Your task to perform on an android device: check google app version Image 0: 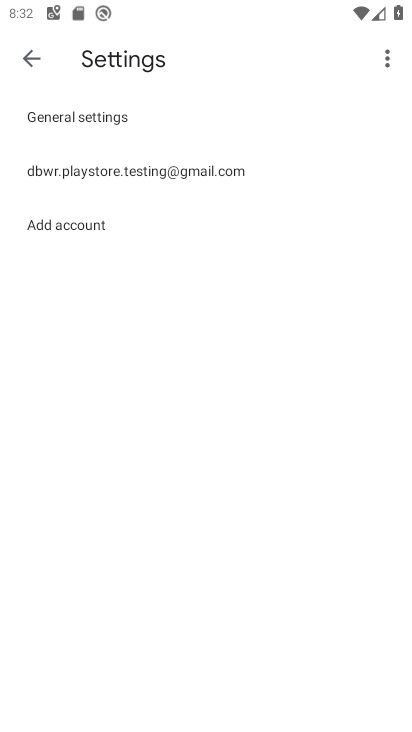
Step 0: click (26, 57)
Your task to perform on an android device: check google app version Image 1: 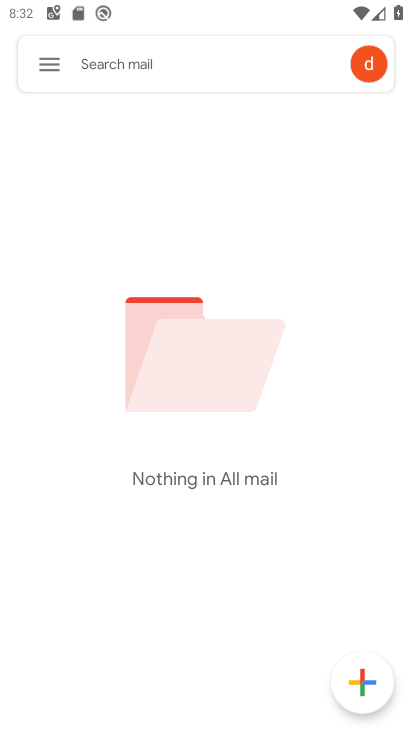
Step 1: press back button
Your task to perform on an android device: check google app version Image 2: 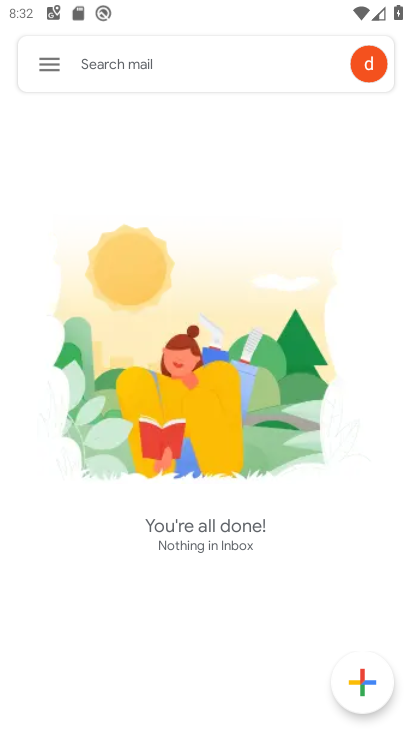
Step 2: press home button
Your task to perform on an android device: check google app version Image 3: 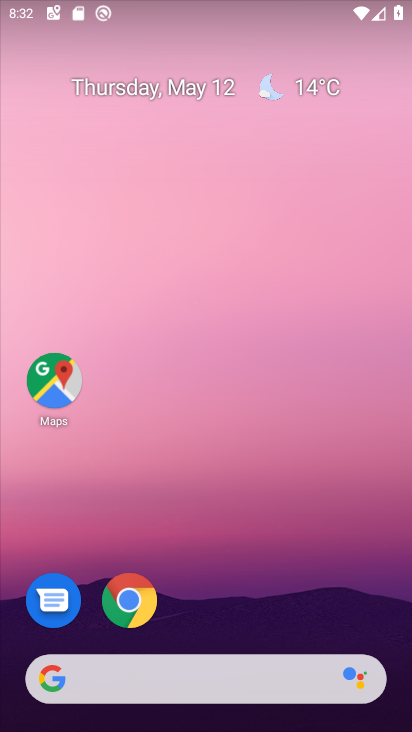
Step 3: drag from (293, 601) to (131, 106)
Your task to perform on an android device: check google app version Image 4: 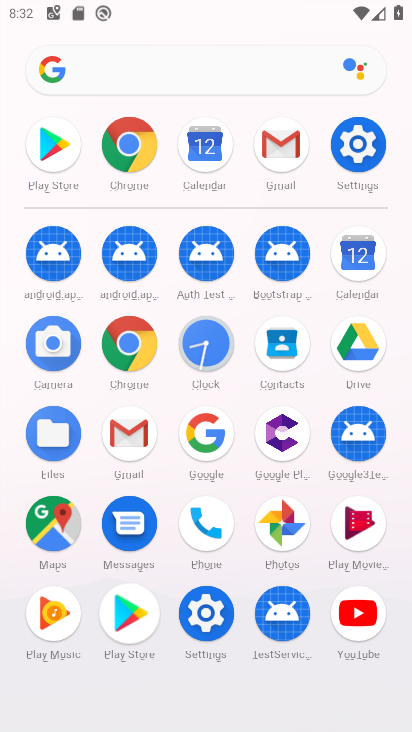
Step 4: click (213, 437)
Your task to perform on an android device: check google app version Image 5: 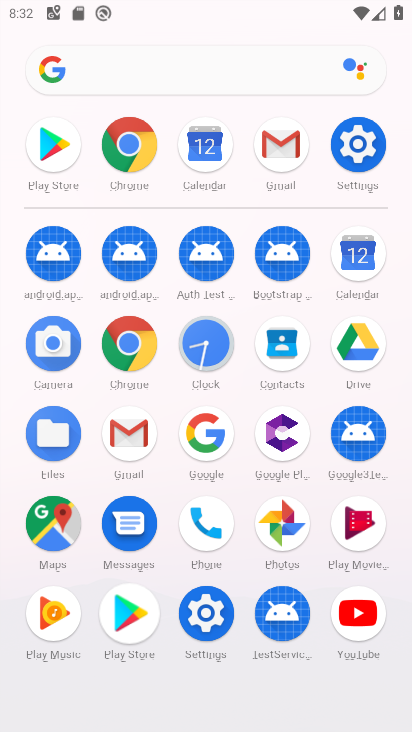
Step 5: click (212, 438)
Your task to perform on an android device: check google app version Image 6: 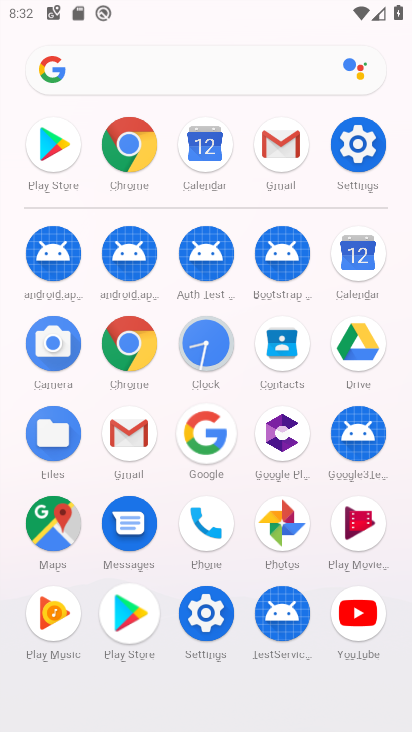
Step 6: click (212, 438)
Your task to perform on an android device: check google app version Image 7: 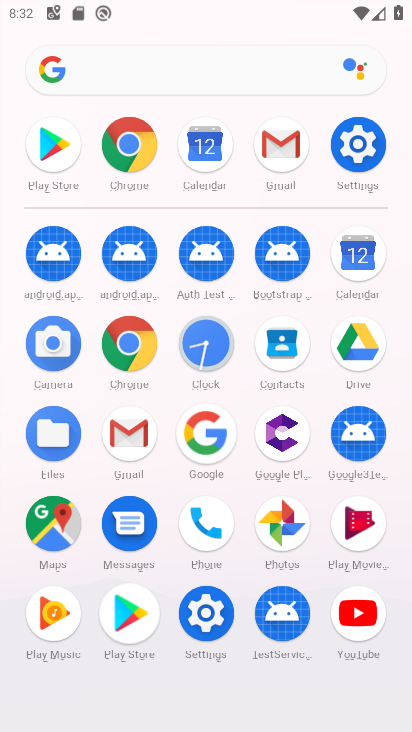
Step 7: click (212, 438)
Your task to perform on an android device: check google app version Image 8: 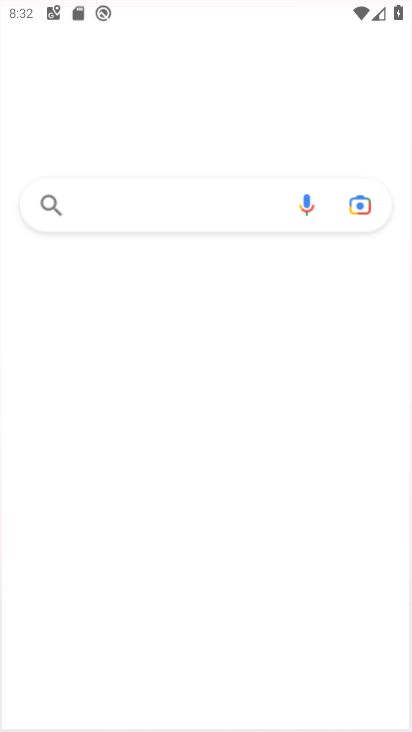
Step 8: click (212, 438)
Your task to perform on an android device: check google app version Image 9: 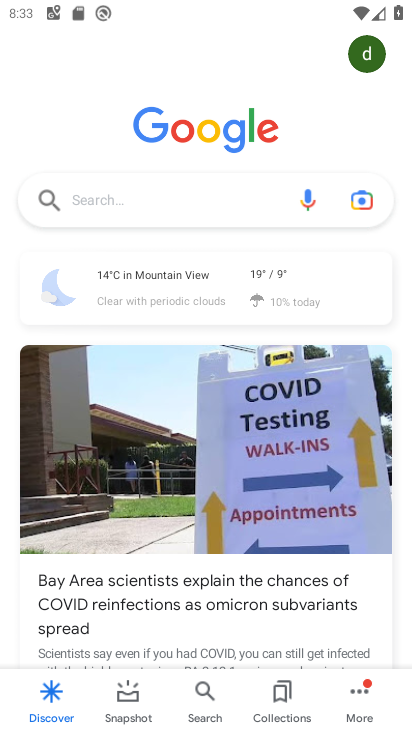
Step 9: click (360, 700)
Your task to perform on an android device: check google app version Image 10: 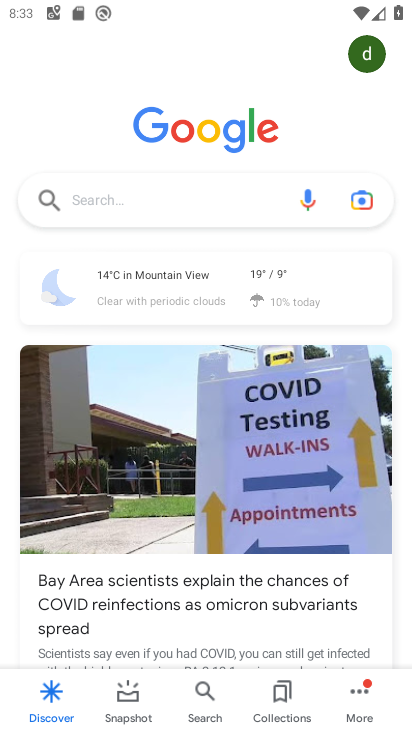
Step 10: click (361, 683)
Your task to perform on an android device: check google app version Image 11: 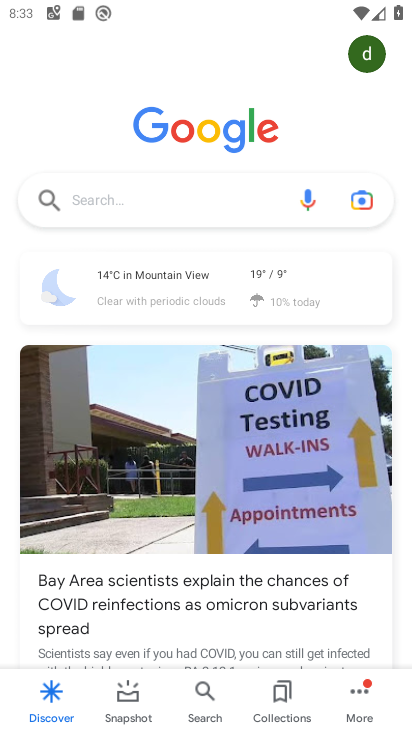
Step 11: click (361, 683)
Your task to perform on an android device: check google app version Image 12: 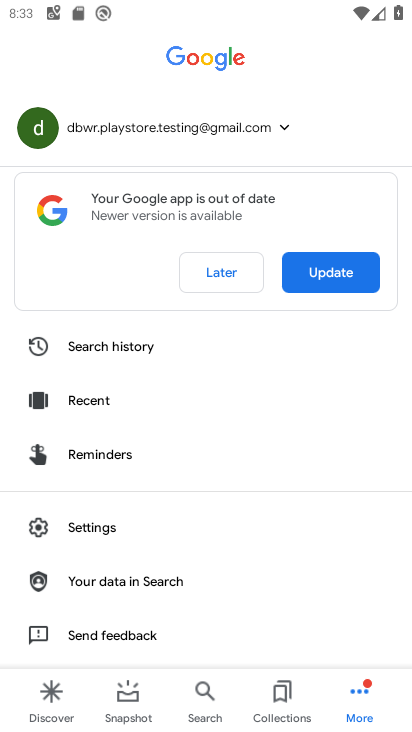
Step 12: drag from (147, 587) to (147, 169)
Your task to perform on an android device: check google app version Image 13: 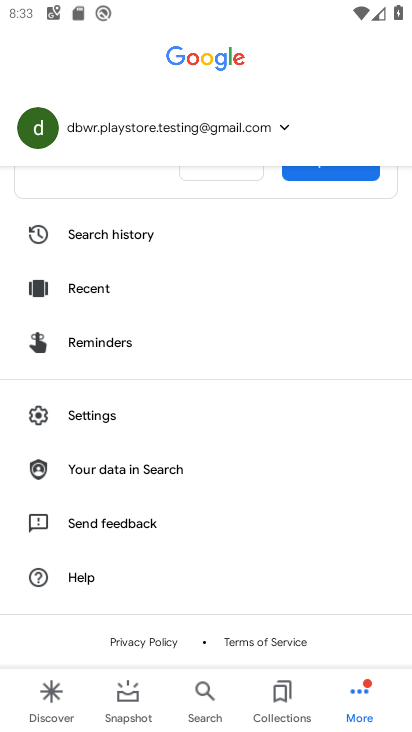
Step 13: drag from (165, 430) to (167, 144)
Your task to perform on an android device: check google app version Image 14: 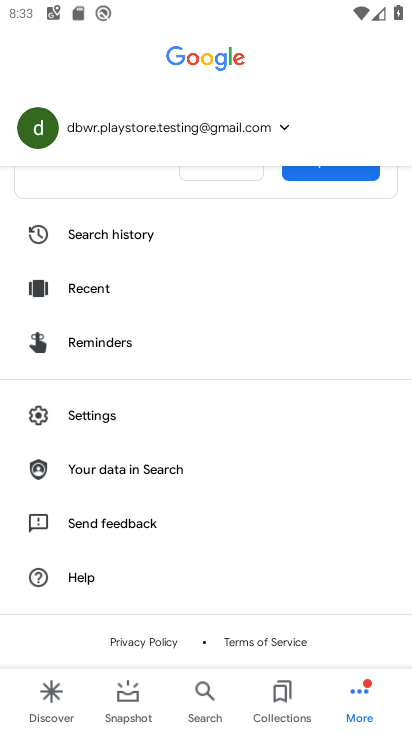
Step 14: click (86, 419)
Your task to perform on an android device: check google app version Image 15: 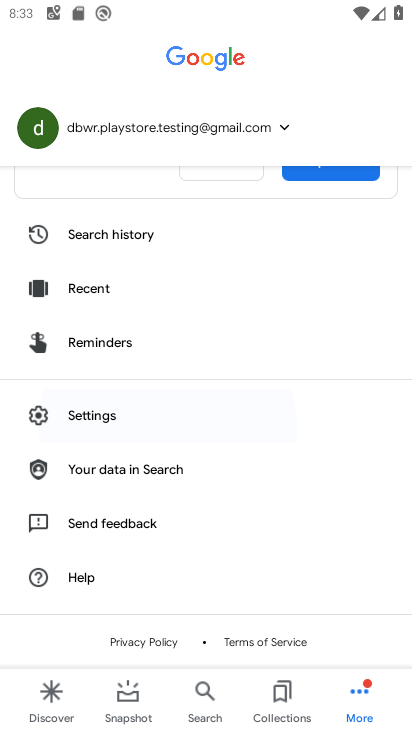
Step 15: click (86, 419)
Your task to perform on an android device: check google app version Image 16: 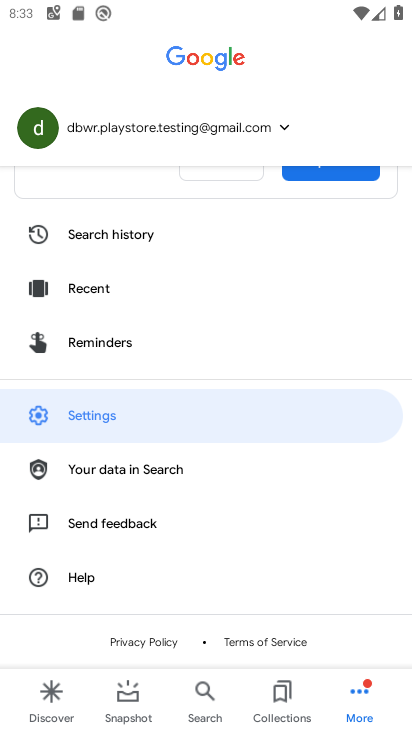
Step 16: click (86, 419)
Your task to perform on an android device: check google app version Image 17: 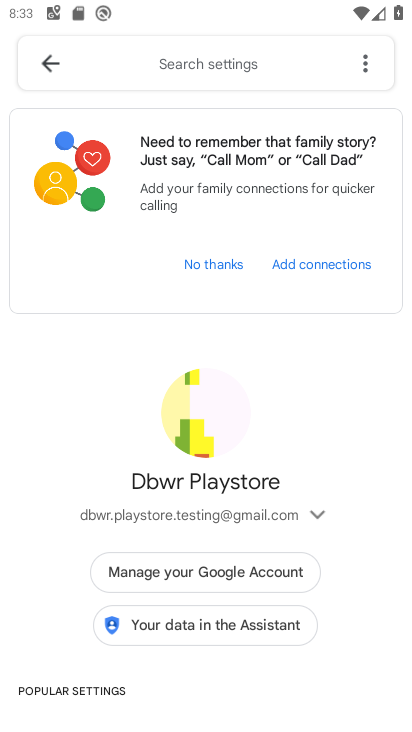
Step 17: click (44, 61)
Your task to perform on an android device: check google app version Image 18: 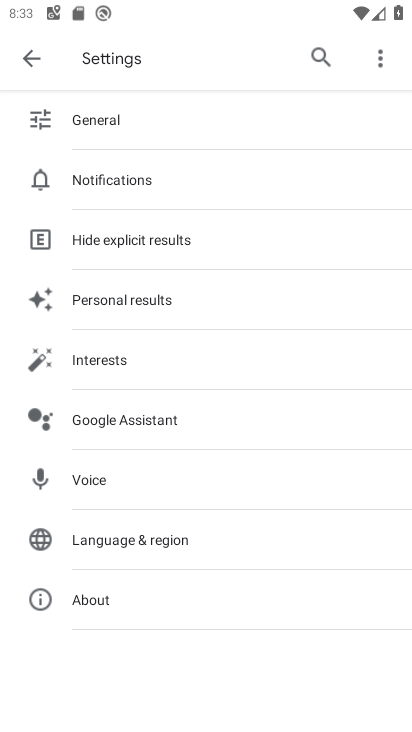
Step 18: click (99, 598)
Your task to perform on an android device: check google app version Image 19: 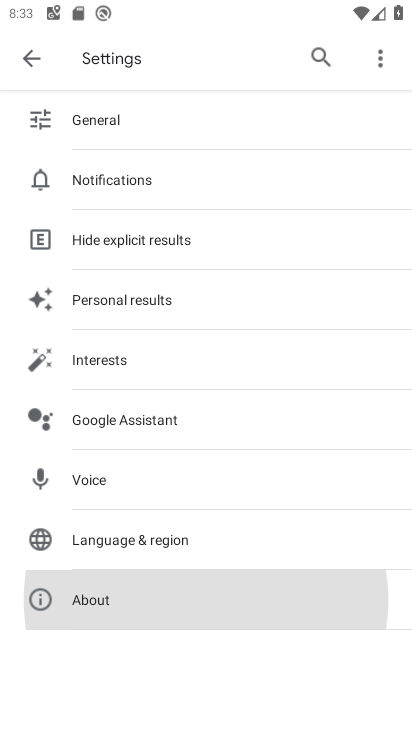
Step 19: click (98, 599)
Your task to perform on an android device: check google app version Image 20: 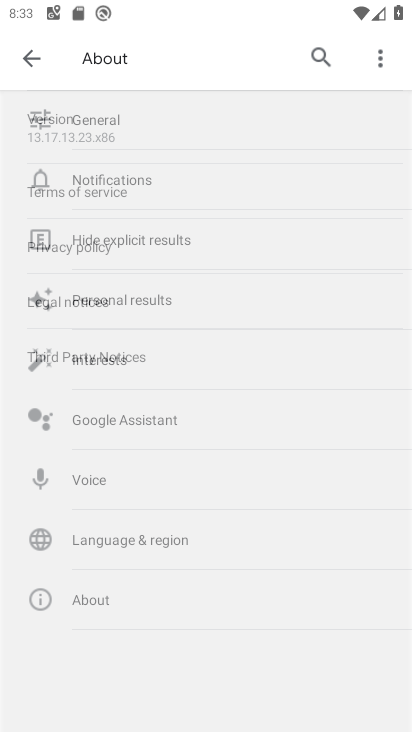
Step 20: click (98, 599)
Your task to perform on an android device: check google app version Image 21: 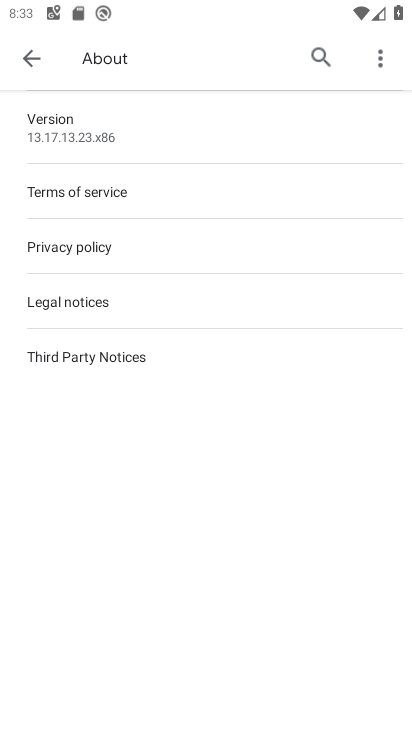
Step 21: task complete